Your task to perform on an android device: install app "Life360: Find Family & Friends" Image 0: 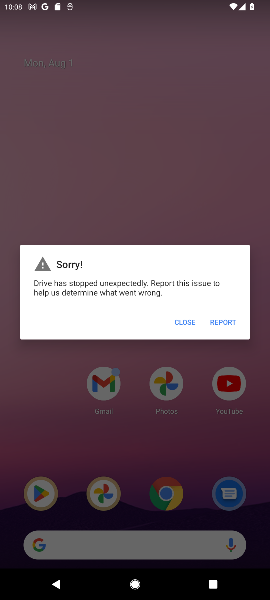
Step 0: click (185, 310)
Your task to perform on an android device: install app "Life360: Find Family & Friends" Image 1: 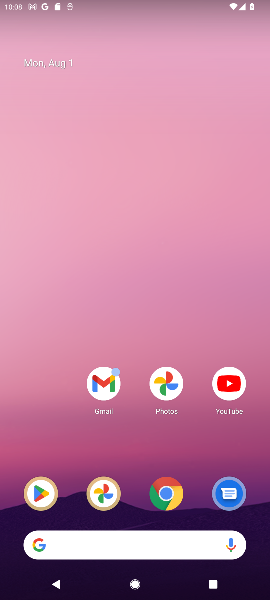
Step 1: click (44, 503)
Your task to perform on an android device: install app "Life360: Find Family & Friends" Image 2: 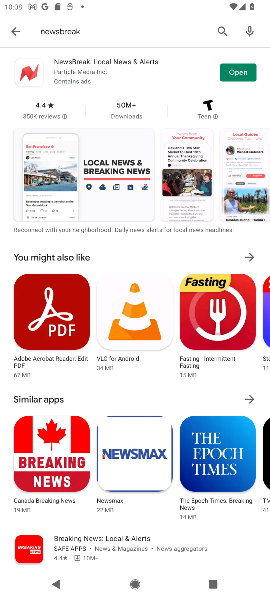
Step 2: click (214, 25)
Your task to perform on an android device: install app "Life360: Find Family & Friends" Image 3: 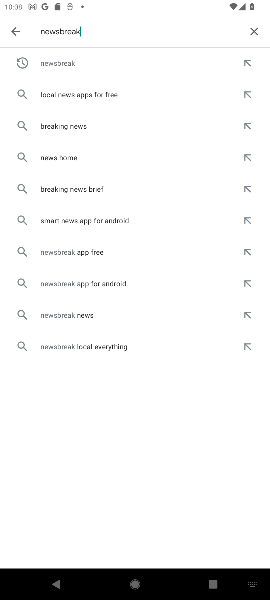
Step 3: click (258, 38)
Your task to perform on an android device: install app "Life360: Find Family & Friends" Image 4: 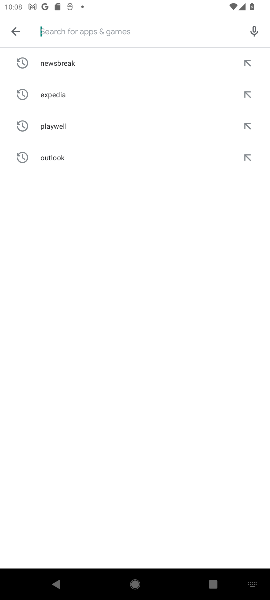
Step 4: type "life 360"
Your task to perform on an android device: install app "Life360: Find Family & Friends" Image 5: 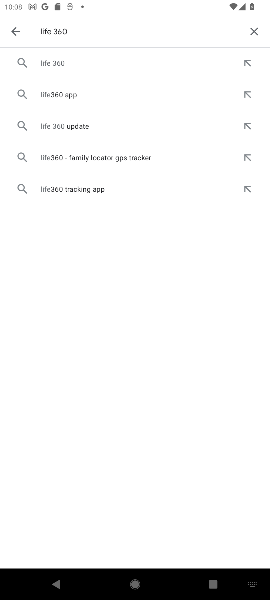
Step 5: click (92, 64)
Your task to perform on an android device: install app "Life360: Find Family & Friends" Image 6: 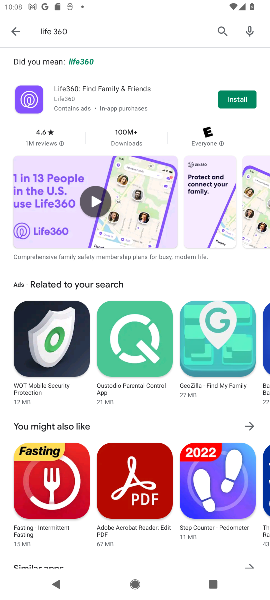
Step 6: click (226, 106)
Your task to perform on an android device: install app "Life360: Find Family & Friends" Image 7: 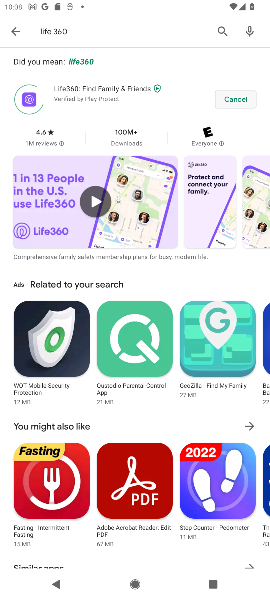
Step 7: task complete